Your task to perform on an android device: Go to settings Image 0: 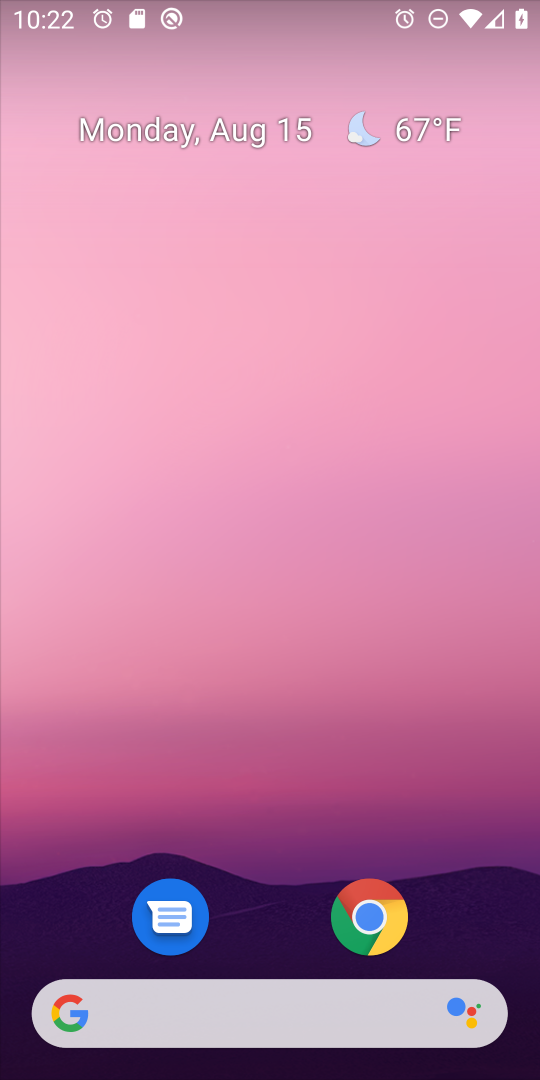
Step 0: drag from (305, 843) to (536, 563)
Your task to perform on an android device: Go to settings Image 1: 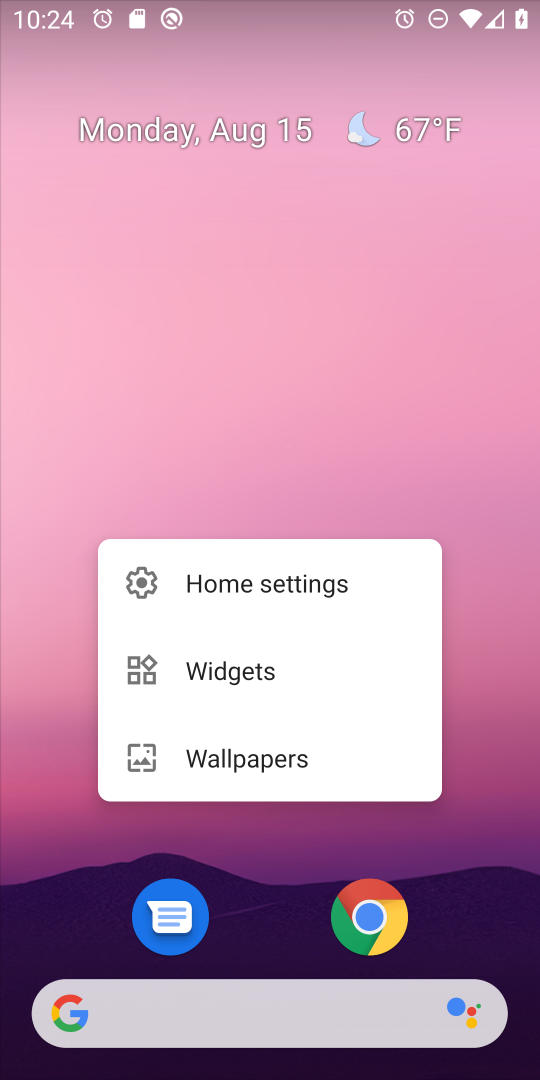
Step 1: click (388, 404)
Your task to perform on an android device: Go to settings Image 2: 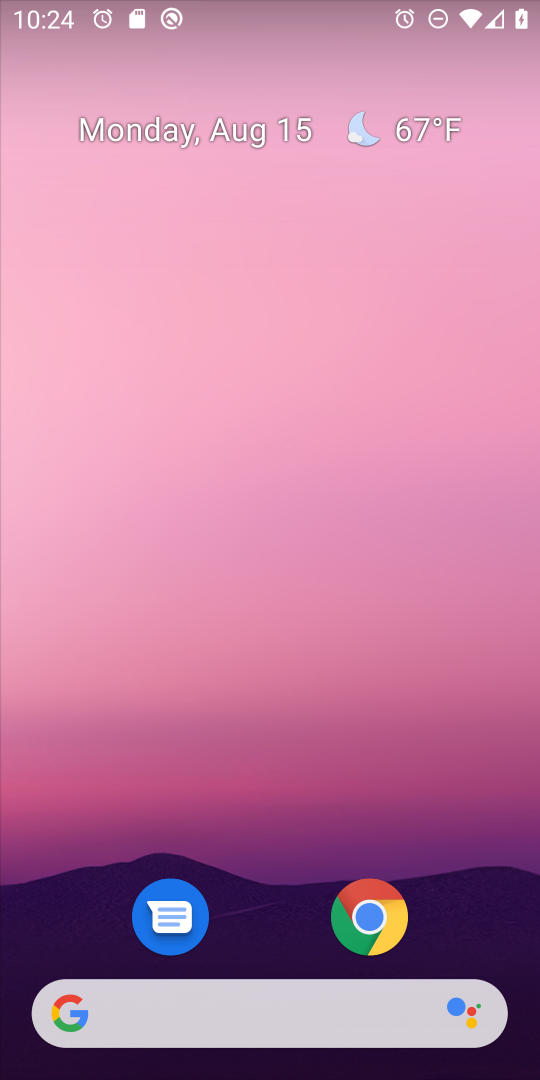
Step 2: drag from (281, 861) to (301, 5)
Your task to perform on an android device: Go to settings Image 3: 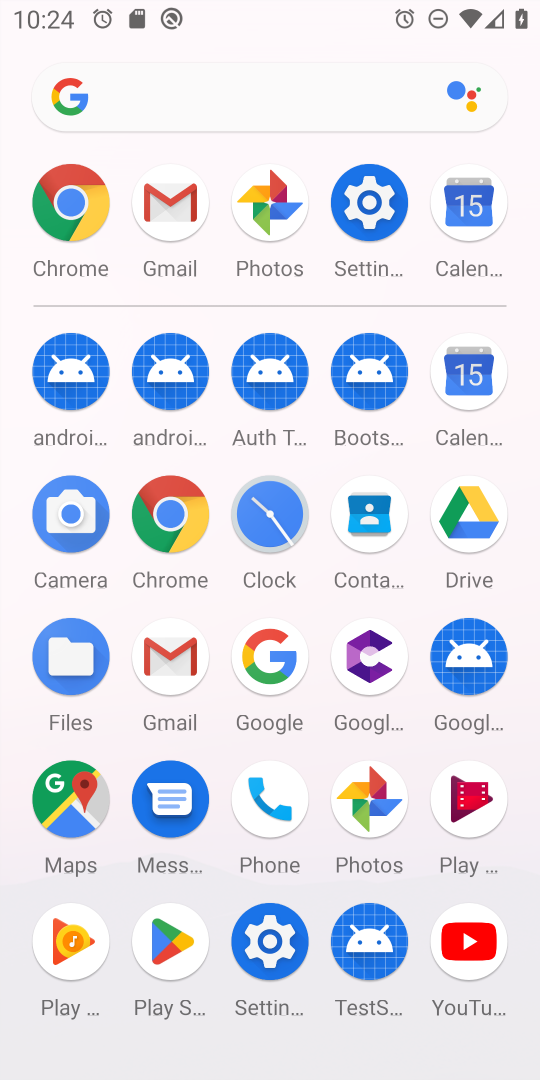
Step 3: click (377, 201)
Your task to perform on an android device: Go to settings Image 4: 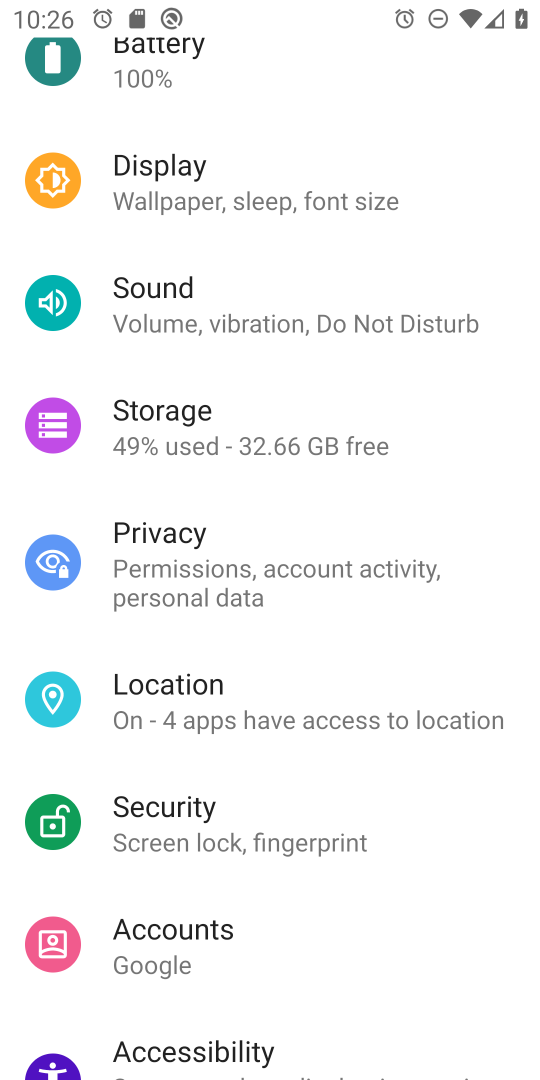
Step 4: task complete